Your task to perform on an android device: toggle translation in the chrome app Image 0: 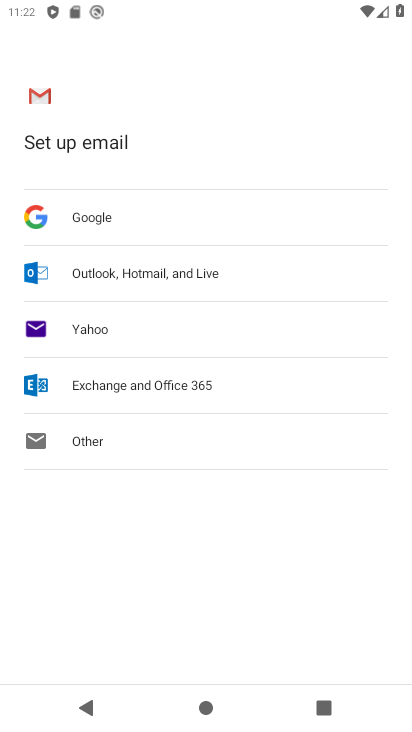
Step 0: press home button
Your task to perform on an android device: toggle translation in the chrome app Image 1: 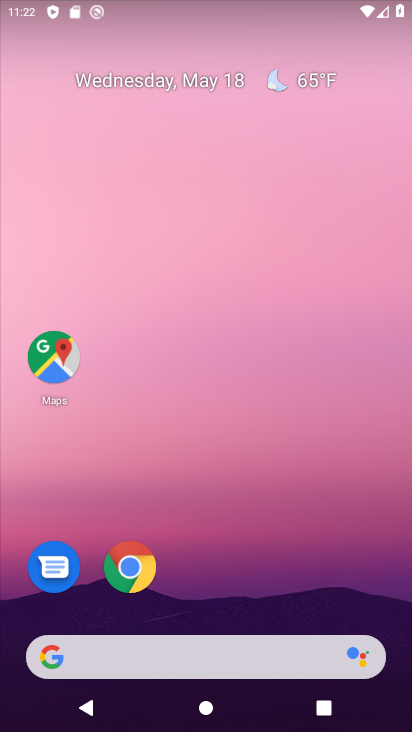
Step 1: click (139, 572)
Your task to perform on an android device: toggle translation in the chrome app Image 2: 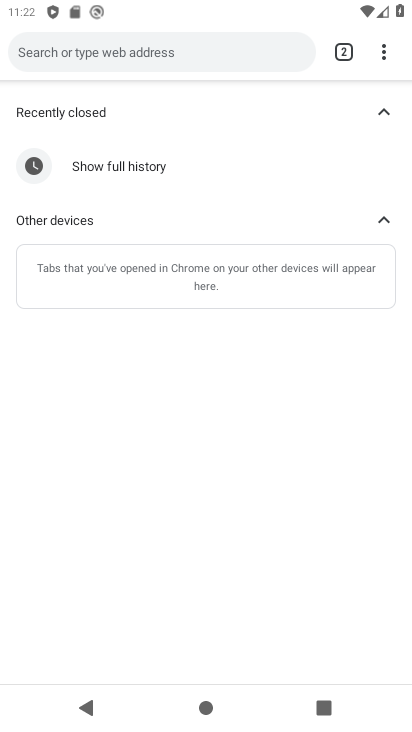
Step 2: click (383, 56)
Your task to perform on an android device: toggle translation in the chrome app Image 3: 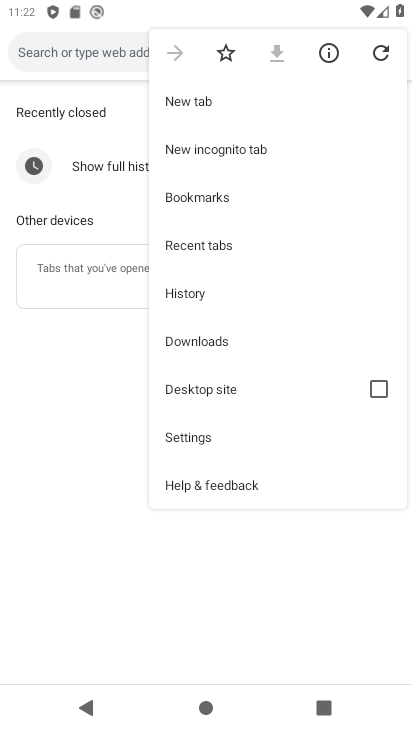
Step 3: click (189, 435)
Your task to perform on an android device: toggle translation in the chrome app Image 4: 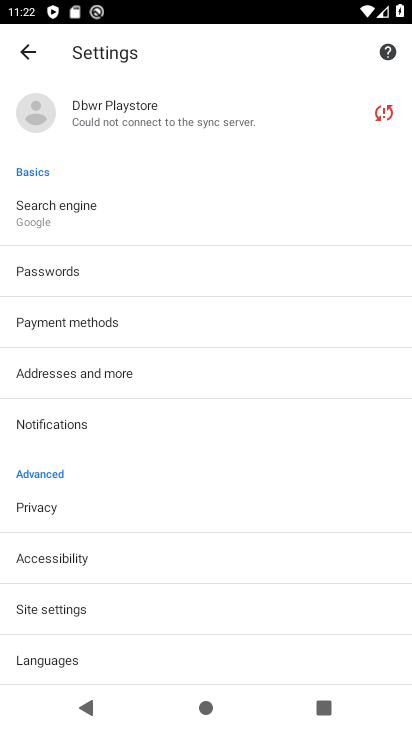
Step 4: click (96, 661)
Your task to perform on an android device: toggle translation in the chrome app Image 5: 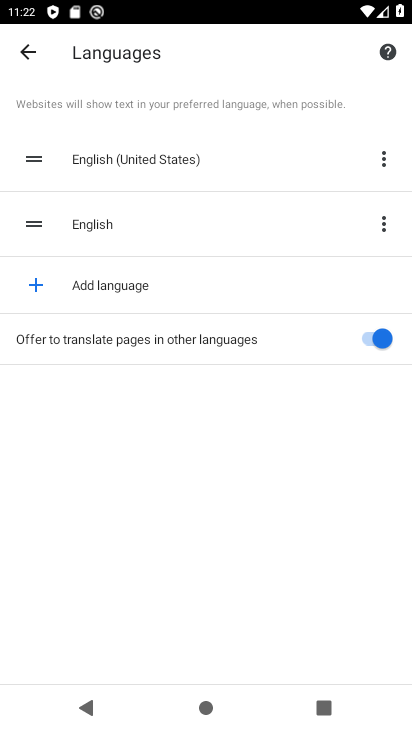
Step 5: click (372, 334)
Your task to perform on an android device: toggle translation in the chrome app Image 6: 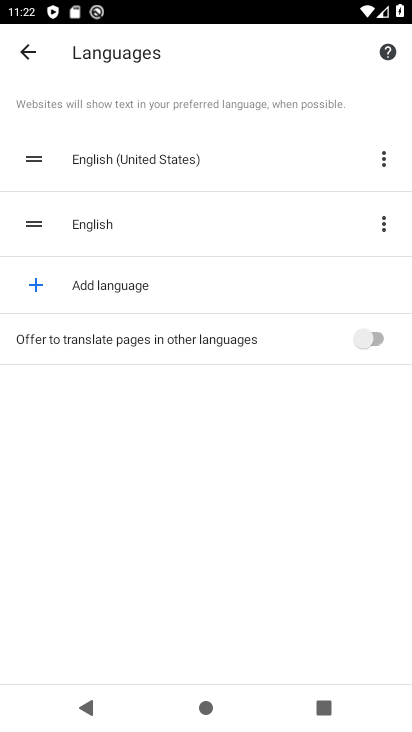
Step 6: task complete